Your task to perform on an android device: toggle priority inbox in the gmail app Image 0: 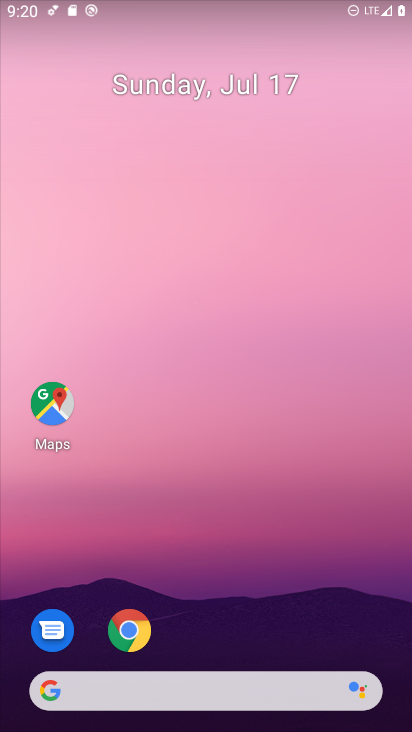
Step 0: drag from (252, 640) to (248, 234)
Your task to perform on an android device: toggle priority inbox in the gmail app Image 1: 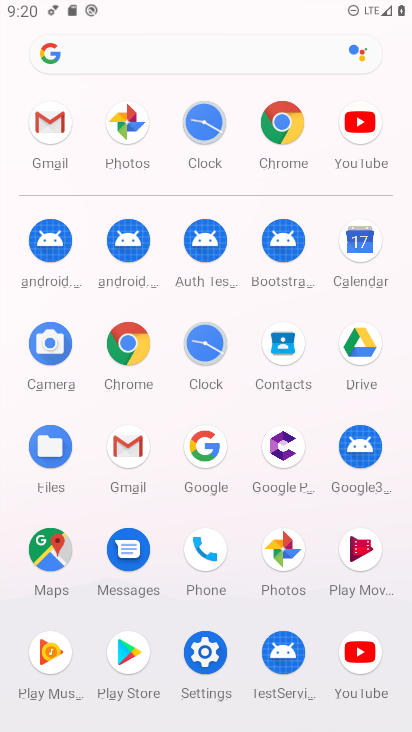
Step 1: click (35, 131)
Your task to perform on an android device: toggle priority inbox in the gmail app Image 2: 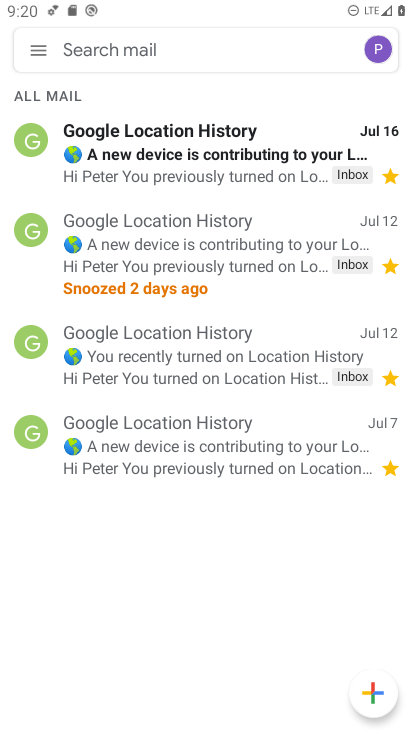
Step 2: click (38, 47)
Your task to perform on an android device: toggle priority inbox in the gmail app Image 3: 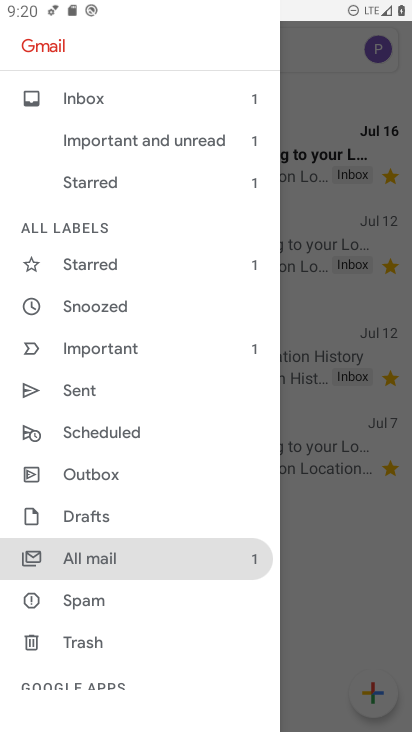
Step 3: drag from (122, 675) to (177, 122)
Your task to perform on an android device: toggle priority inbox in the gmail app Image 4: 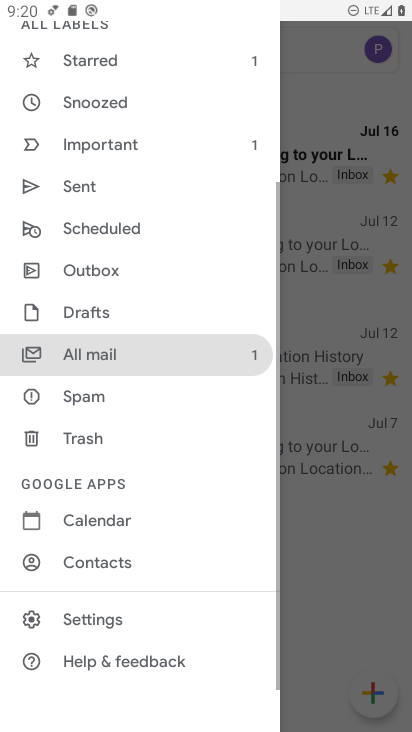
Step 4: click (106, 623)
Your task to perform on an android device: toggle priority inbox in the gmail app Image 5: 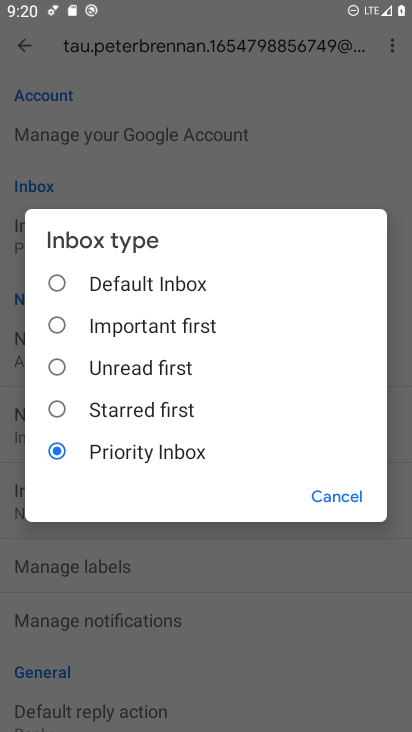
Step 5: click (97, 276)
Your task to perform on an android device: toggle priority inbox in the gmail app Image 6: 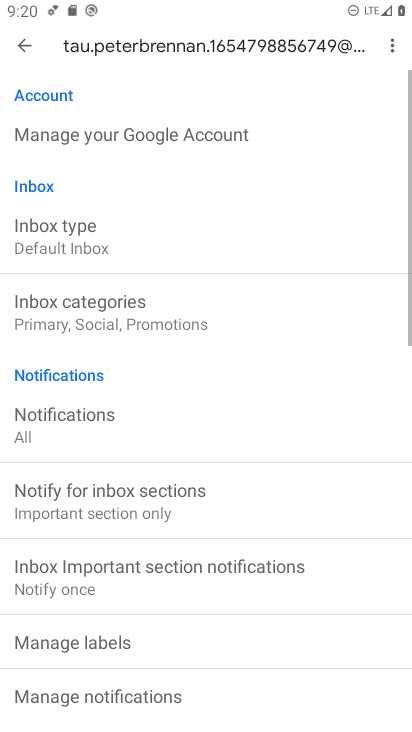
Step 6: task complete